Your task to perform on an android device: move a message to another label in the gmail app Image 0: 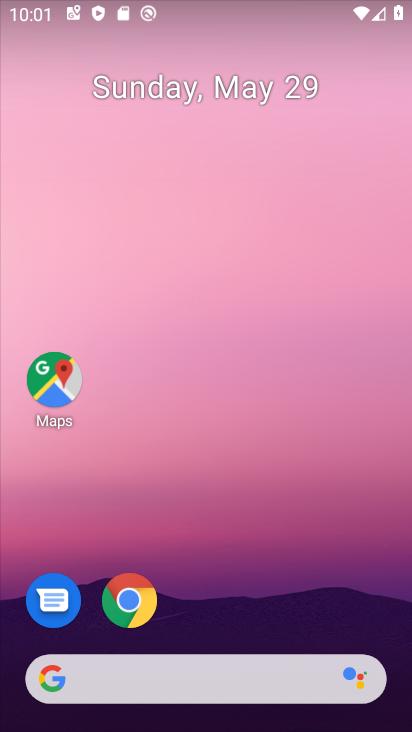
Step 0: drag from (211, 724) to (122, 11)
Your task to perform on an android device: move a message to another label in the gmail app Image 1: 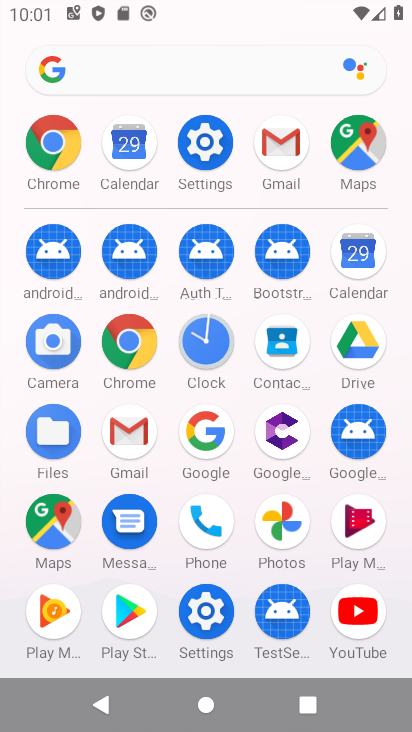
Step 1: click (136, 429)
Your task to perform on an android device: move a message to another label in the gmail app Image 2: 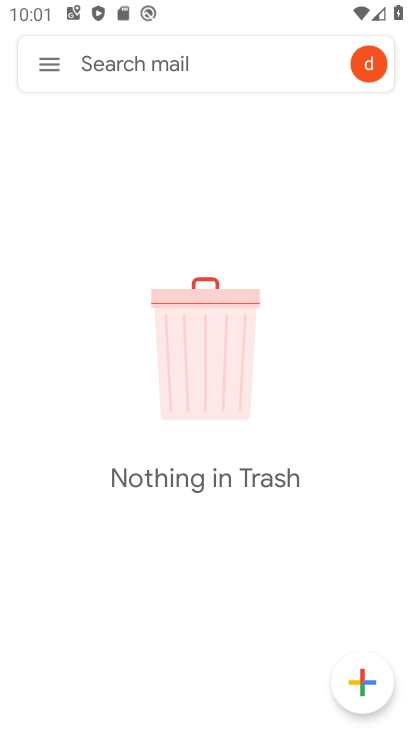
Step 2: click (40, 60)
Your task to perform on an android device: move a message to another label in the gmail app Image 3: 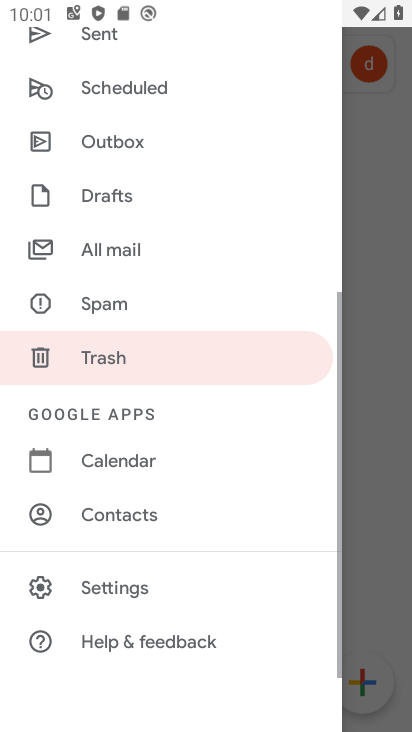
Step 3: drag from (129, 153) to (178, 602)
Your task to perform on an android device: move a message to another label in the gmail app Image 4: 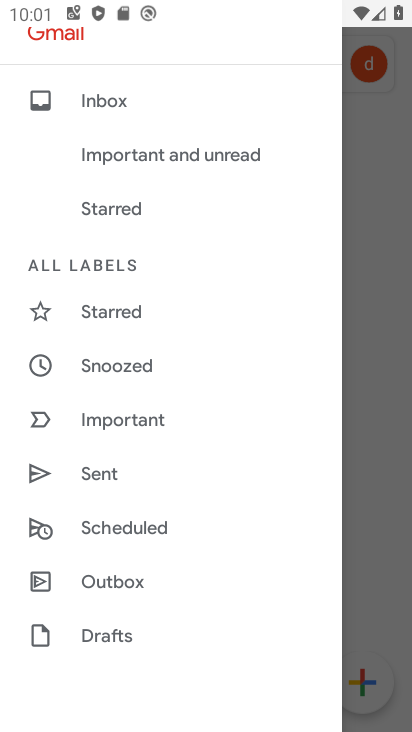
Step 4: click (107, 100)
Your task to perform on an android device: move a message to another label in the gmail app Image 5: 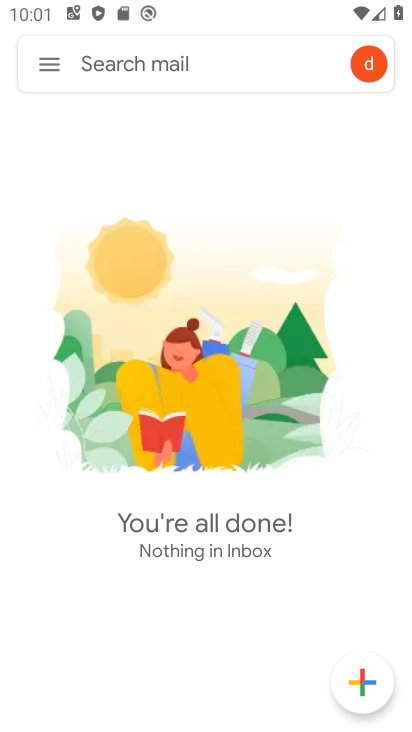
Step 5: task complete